Your task to perform on an android device: Open the web browser Image 0: 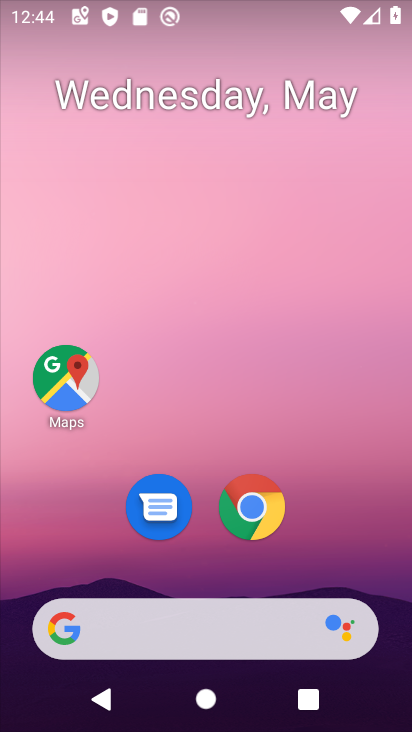
Step 0: click (256, 501)
Your task to perform on an android device: Open the web browser Image 1: 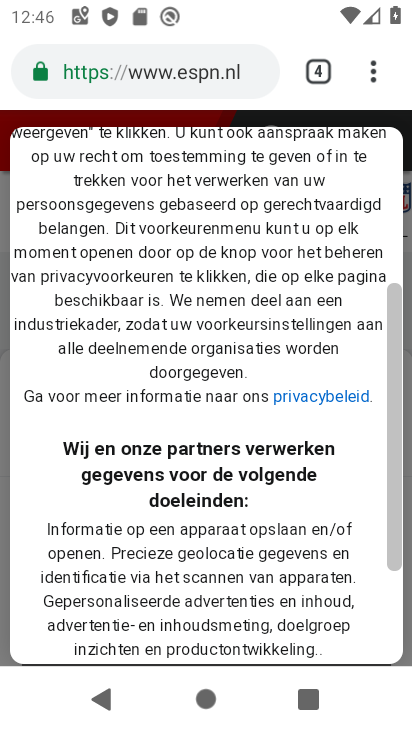
Step 1: task complete